Your task to perform on an android device: clear all cookies in the chrome app Image 0: 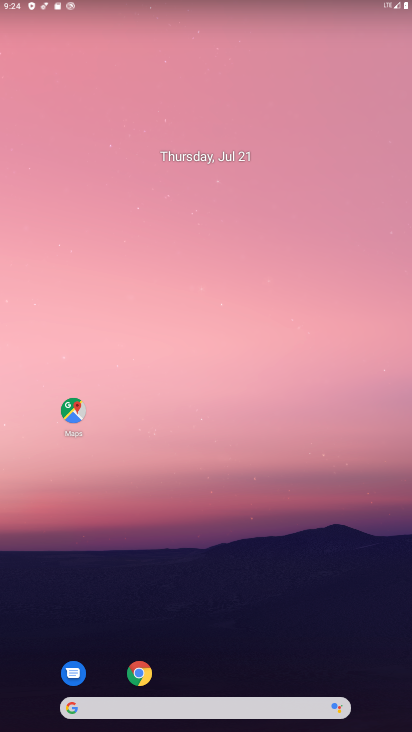
Step 0: drag from (185, 662) to (301, 119)
Your task to perform on an android device: clear all cookies in the chrome app Image 1: 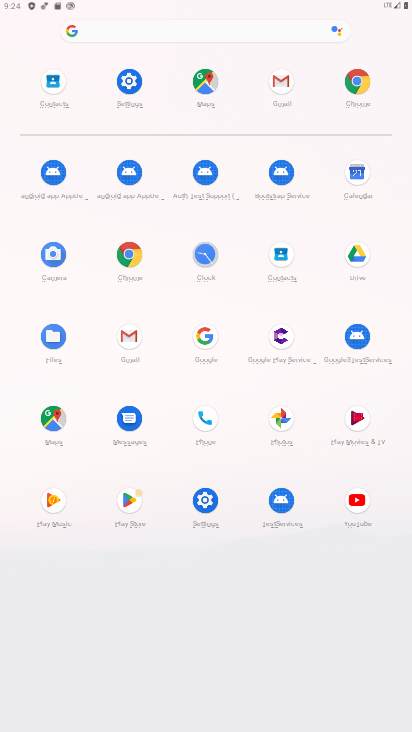
Step 1: click (130, 253)
Your task to perform on an android device: clear all cookies in the chrome app Image 2: 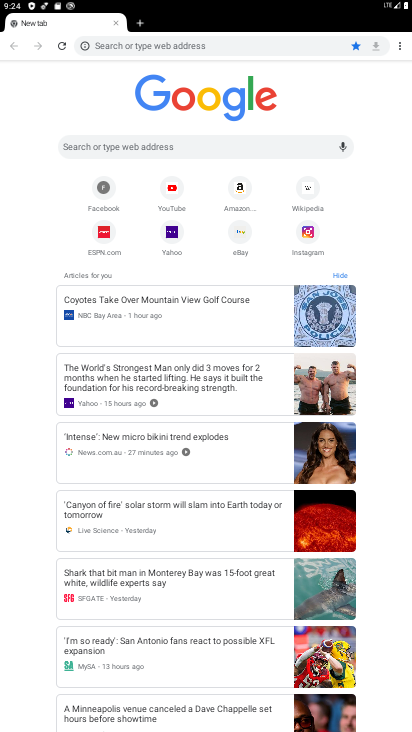
Step 2: drag from (189, 528) to (262, 642)
Your task to perform on an android device: clear all cookies in the chrome app Image 3: 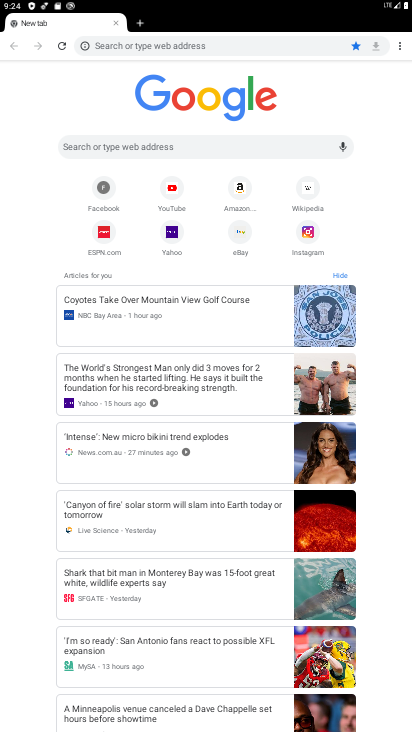
Step 3: drag from (402, 47) to (320, 162)
Your task to perform on an android device: clear all cookies in the chrome app Image 4: 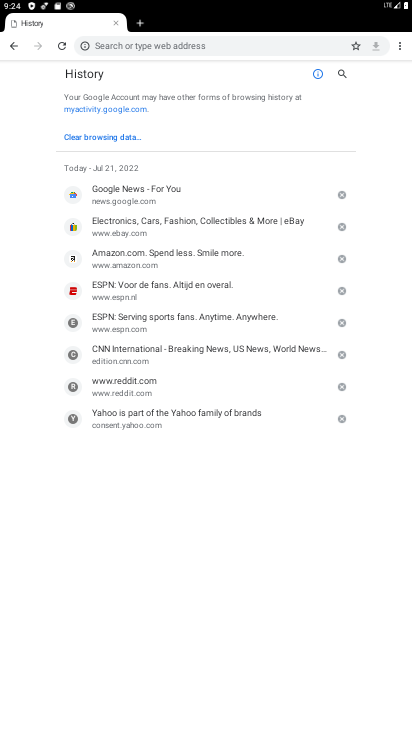
Step 4: click (84, 132)
Your task to perform on an android device: clear all cookies in the chrome app Image 5: 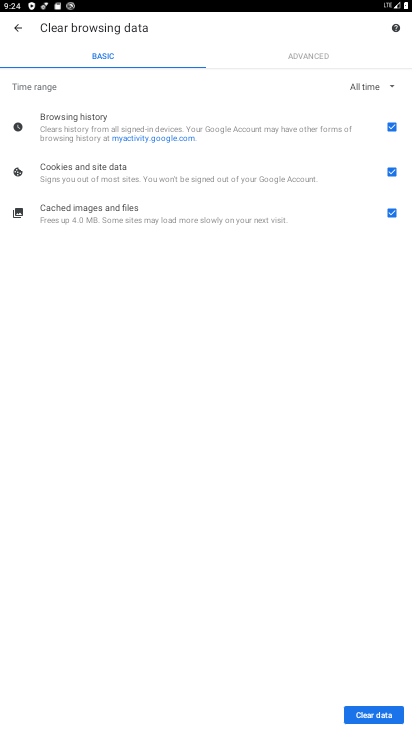
Step 5: click (390, 115)
Your task to perform on an android device: clear all cookies in the chrome app Image 6: 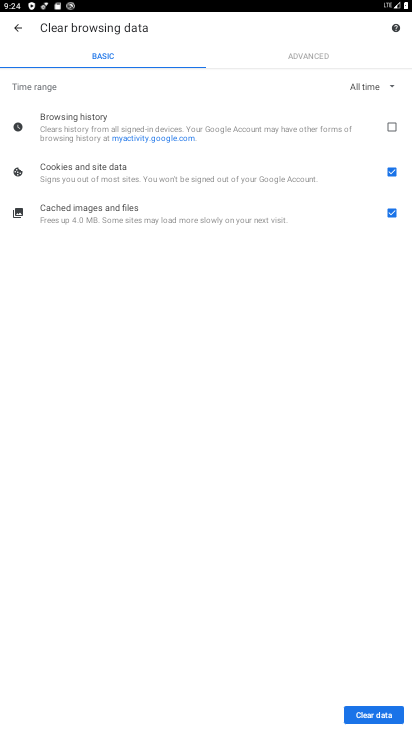
Step 6: click (401, 208)
Your task to perform on an android device: clear all cookies in the chrome app Image 7: 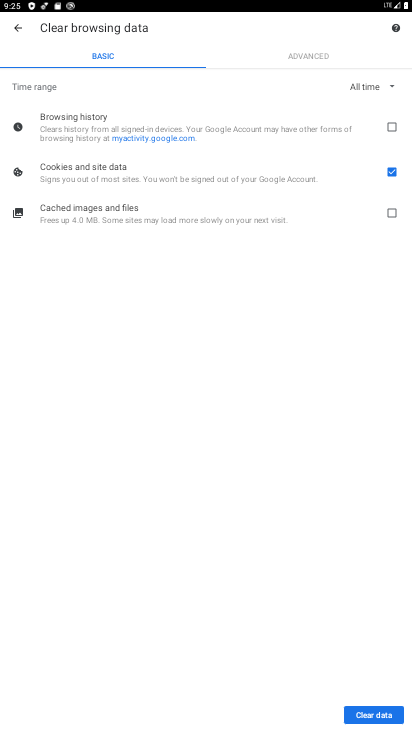
Step 7: click (373, 707)
Your task to perform on an android device: clear all cookies in the chrome app Image 8: 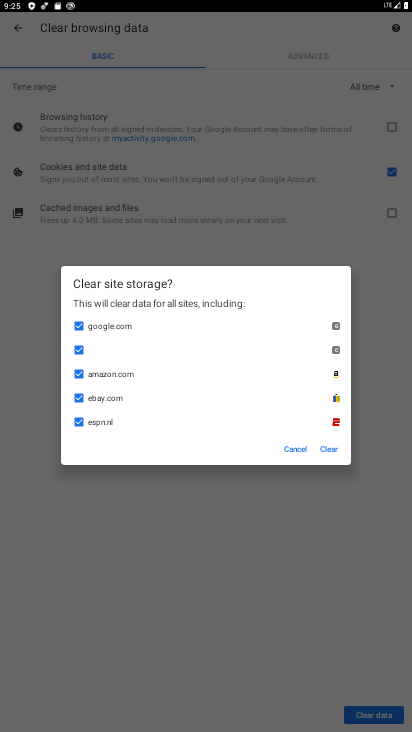
Step 8: click (333, 449)
Your task to perform on an android device: clear all cookies in the chrome app Image 9: 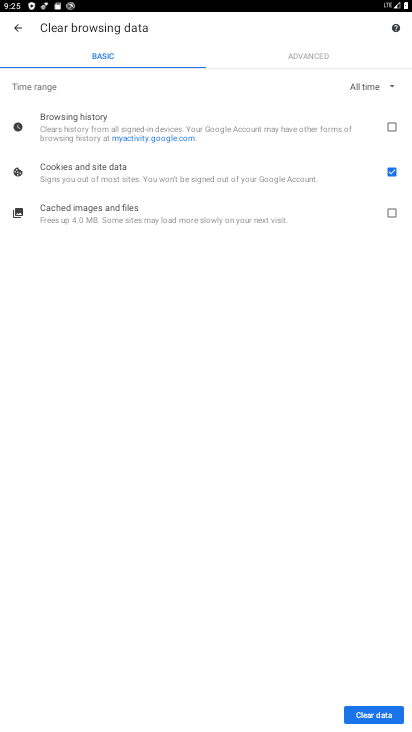
Step 9: task complete